Your task to perform on an android device: Go to privacy settings Image 0: 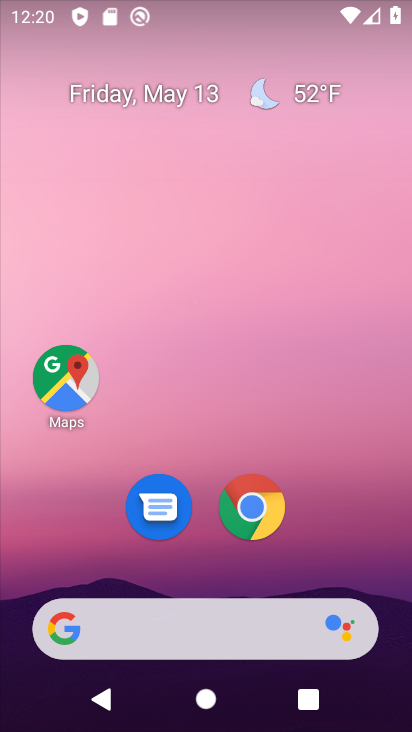
Step 0: drag from (211, 566) to (222, 248)
Your task to perform on an android device: Go to privacy settings Image 1: 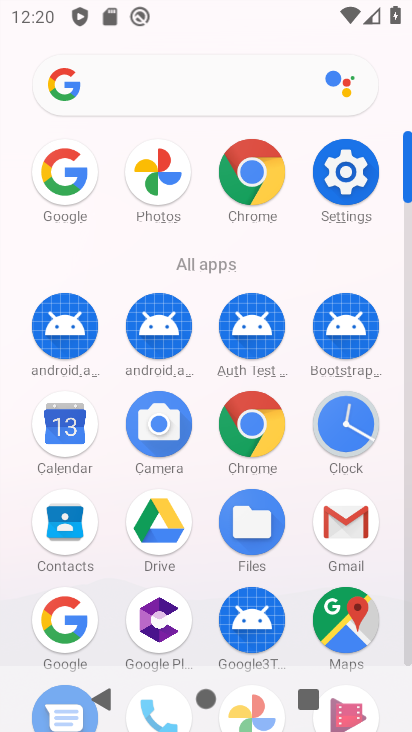
Step 1: click (337, 169)
Your task to perform on an android device: Go to privacy settings Image 2: 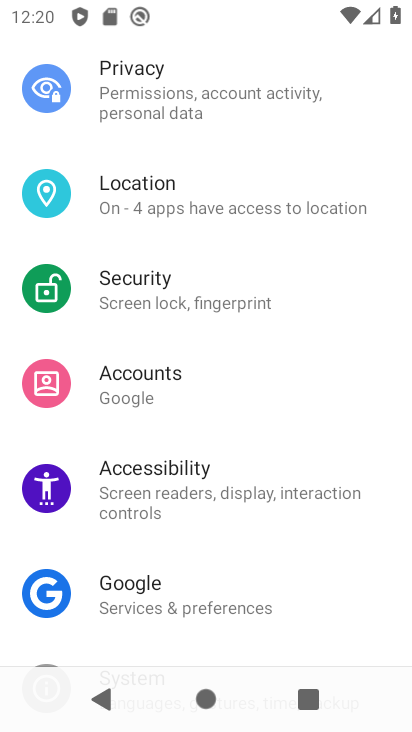
Step 2: click (161, 97)
Your task to perform on an android device: Go to privacy settings Image 3: 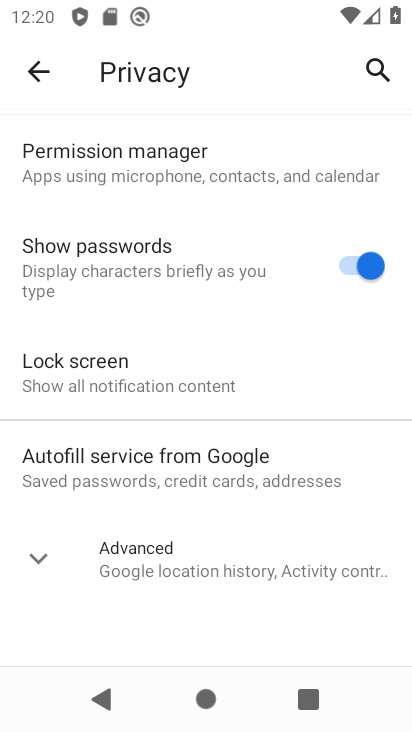
Step 3: click (174, 549)
Your task to perform on an android device: Go to privacy settings Image 4: 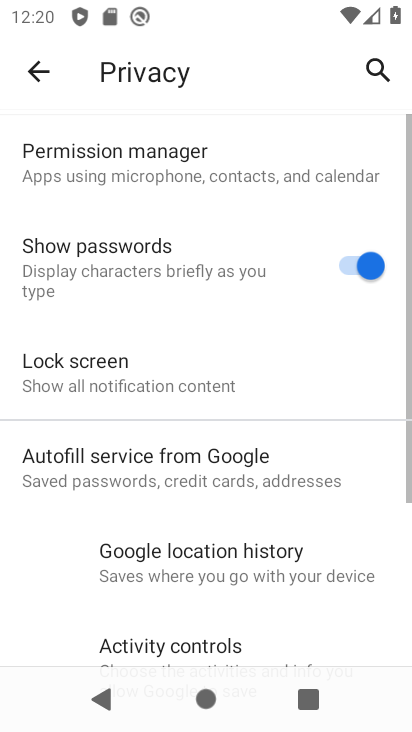
Step 4: task complete